Your task to perform on an android device: Open maps Image 0: 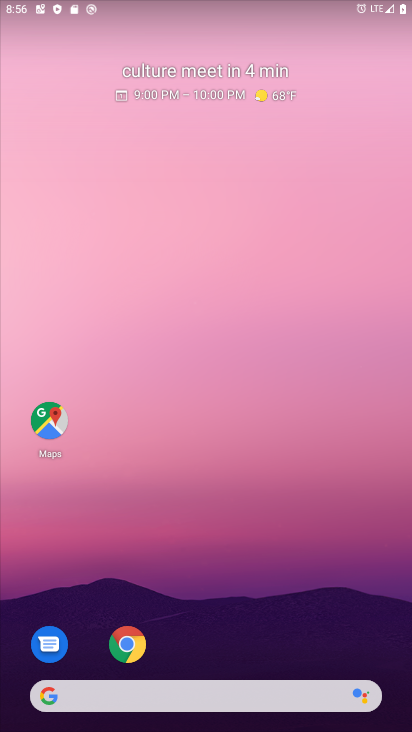
Step 0: drag from (232, 711) to (260, 216)
Your task to perform on an android device: Open maps Image 1: 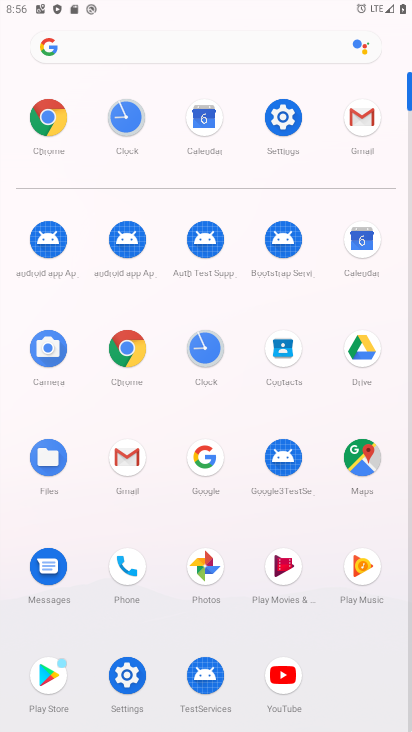
Step 1: click (364, 467)
Your task to perform on an android device: Open maps Image 2: 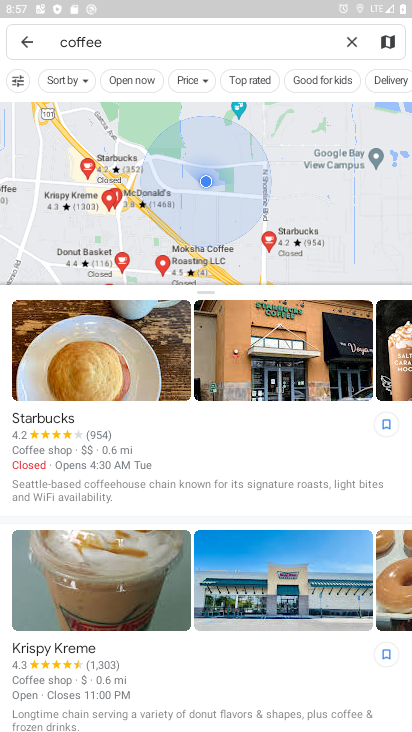
Step 2: click (27, 41)
Your task to perform on an android device: Open maps Image 3: 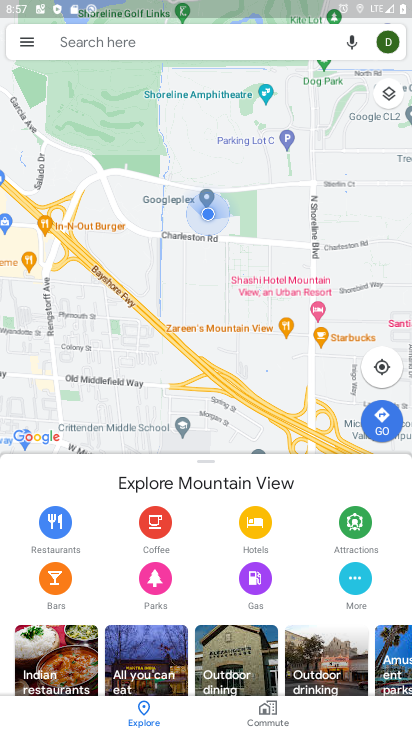
Step 3: task complete